Your task to perform on an android device: delete location history Image 0: 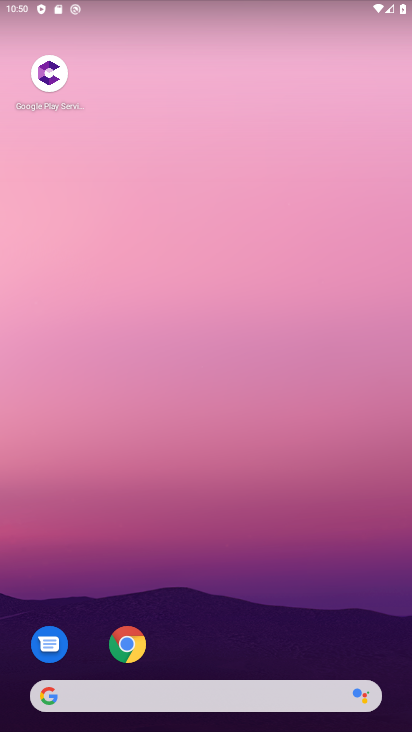
Step 0: drag from (241, 706) to (229, 55)
Your task to perform on an android device: delete location history Image 1: 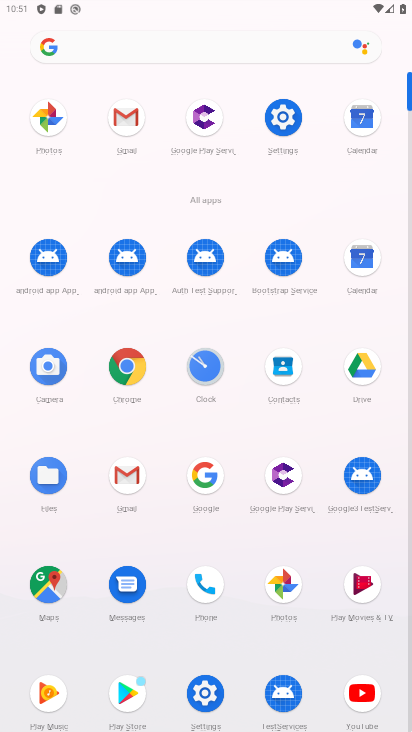
Step 1: click (39, 581)
Your task to perform on an android device: delete location history Image 2: 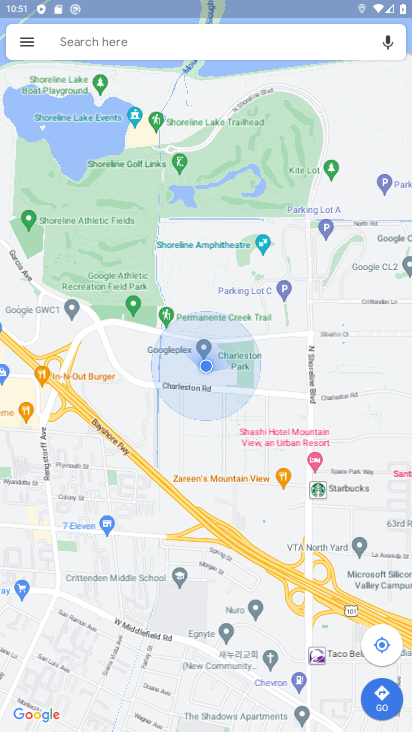
Step 2: click (24, 40)
Your task to perform on an android device: delete location history Image 3: 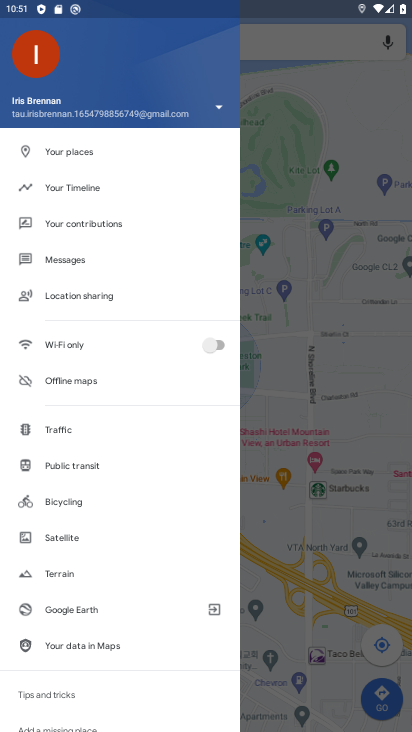
Step 3: click (83, 186)
Your task to perform on an android device: delete location history Image 4: 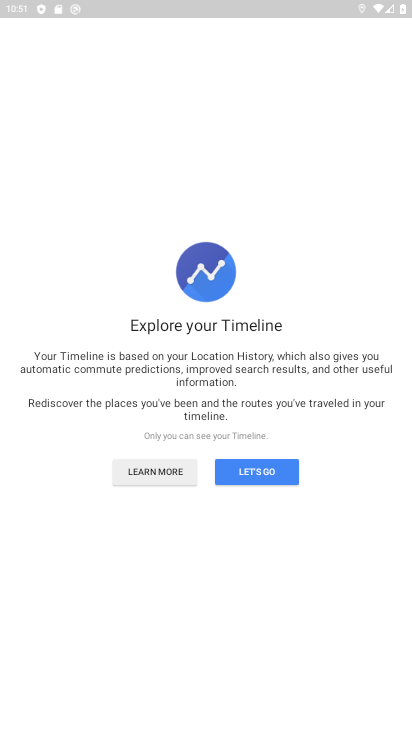
Step 4: click (242, 471)
Your task to perform on an android device: delete location history Image 5: 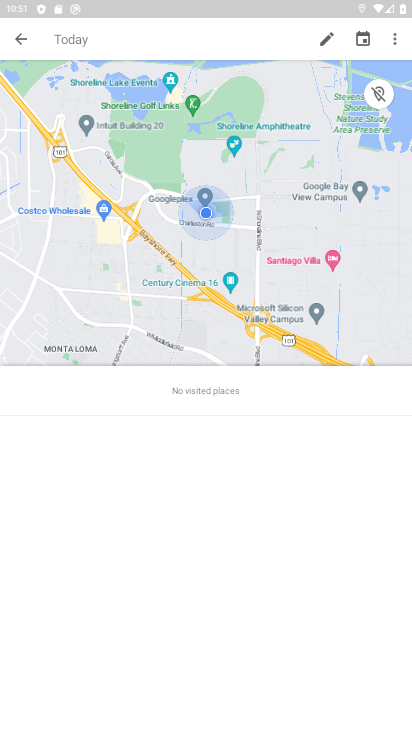
Step 5: click (397, 36)
Your task to perform on an android device: delete location history Image 6: 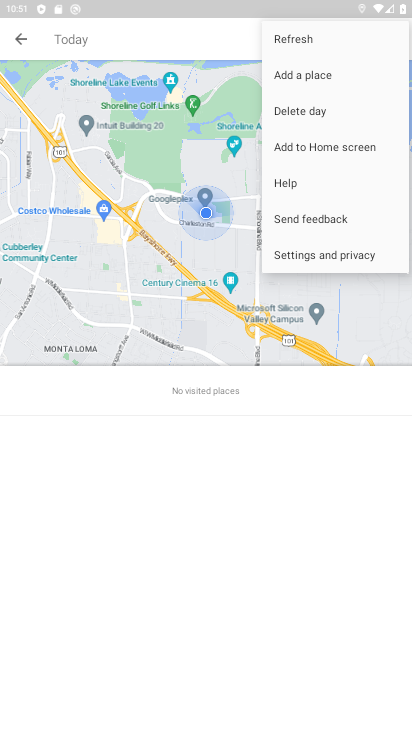
Step 6: click (293, 253)
Your task to perform on an android device: delete location history Image 7: 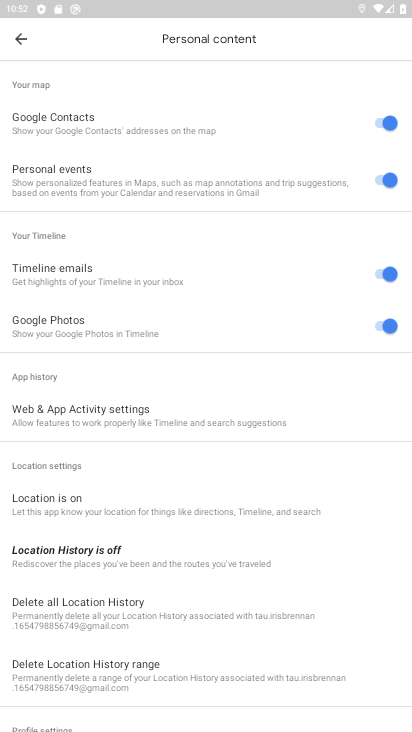
Step 7: drag from (155, 662) to (146, 588)
Your task to perform on an android device: delete location history Image 8: 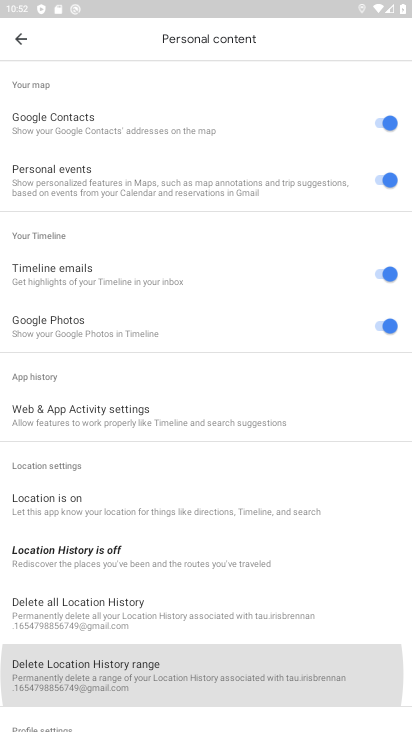
Step 8: drag from (130, 463) to (125, 347)
Your task to perform on an android device: delete location history Image 9: 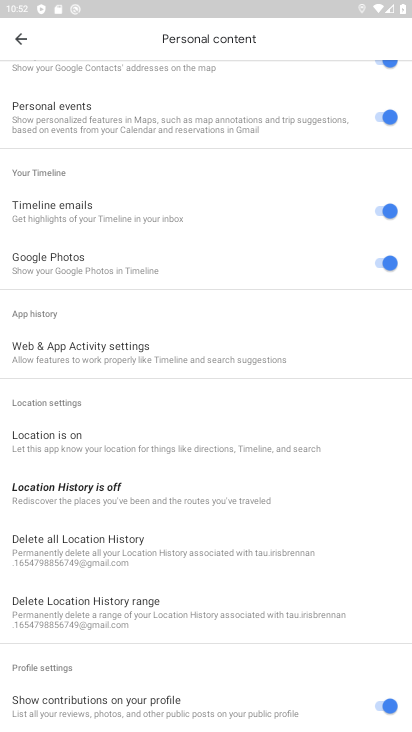
Step 9: click (104, 551)
Your task to perform on an android device: delete location history Image 10: 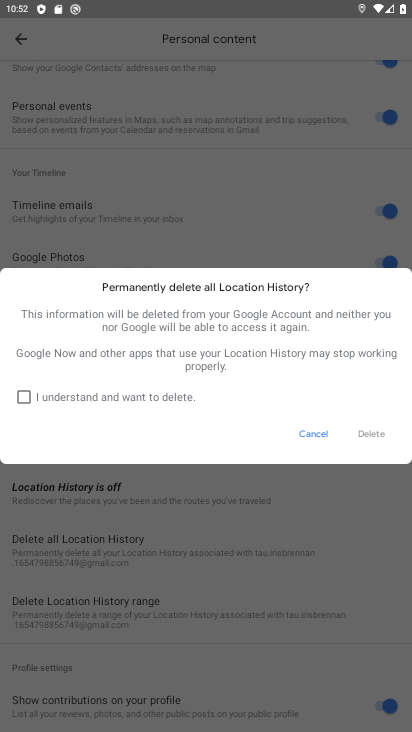
Step 10: click (26, 397)
Your task to perform on an android device: delete location history Image 11: 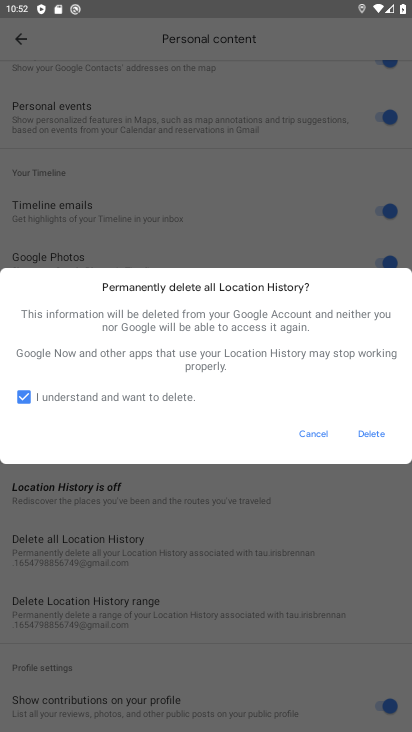
Step 11: click (370, 431)
Your task to perform on an android device: delete location history Image 12: 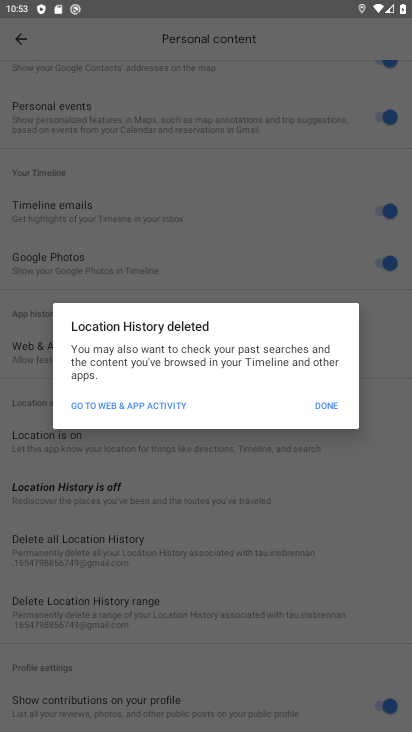
Step 12: click (324, 400)
Your task to perform on an android device: delete location history Image 13: 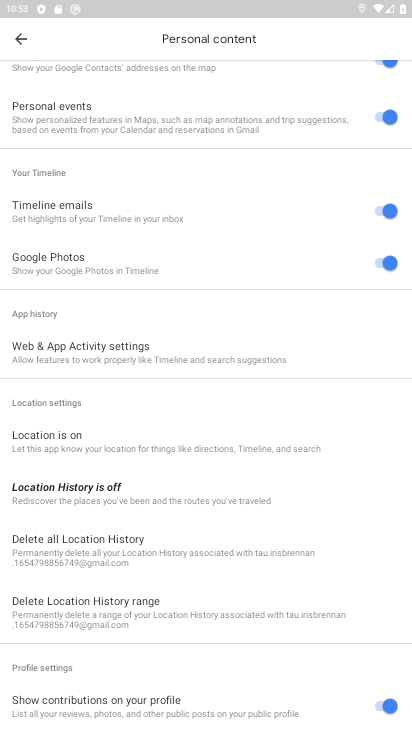
Step 13: task complete